Your task to perform on an android device: Open notification settings Image 0: 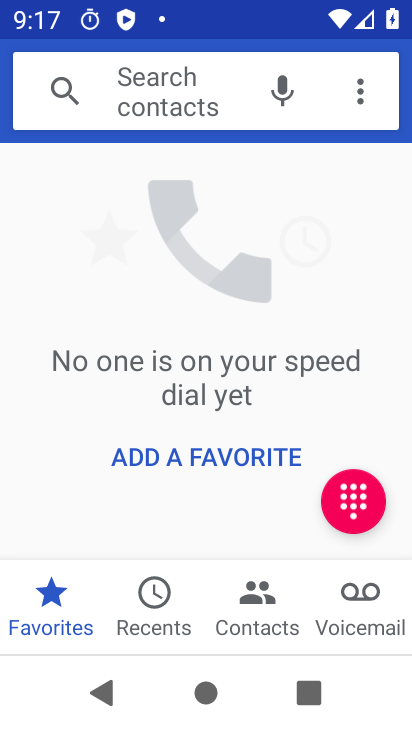
Step 0: press home button
Your task to perform on an android device: Open notification settings Image 1: 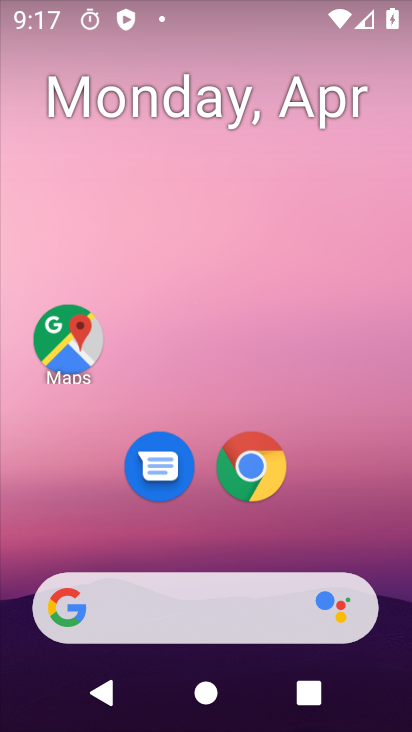
Step 1: drag from (205, 555) to (165, 23)
Your task to perform on an android device: Open notification settings Image 2: 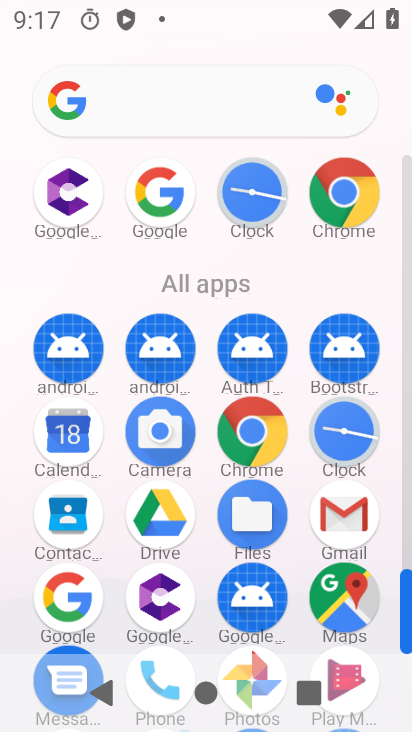
Step 2: drag from (207, 558) to (152, 124)
Your task to perform on an android device: Open notification settings Image 3: 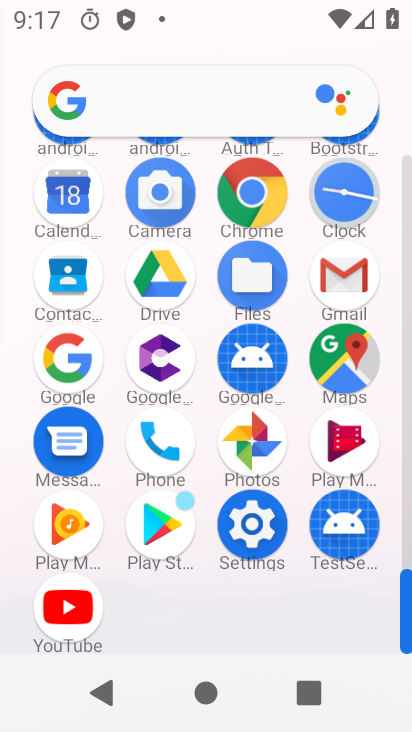
Step 3: click (244, 539)
Your task to perform on an android device: Open notification settings Image 4: 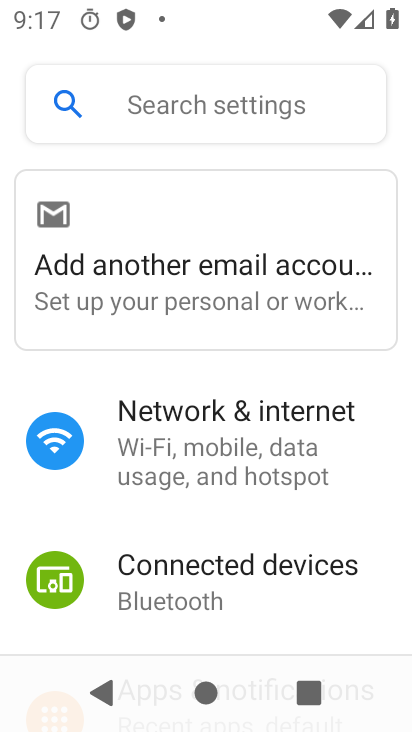
Step 4: drag from (303, 552) to (241, 209)
Your task to perform on an android device: Open notification settings Image 5: 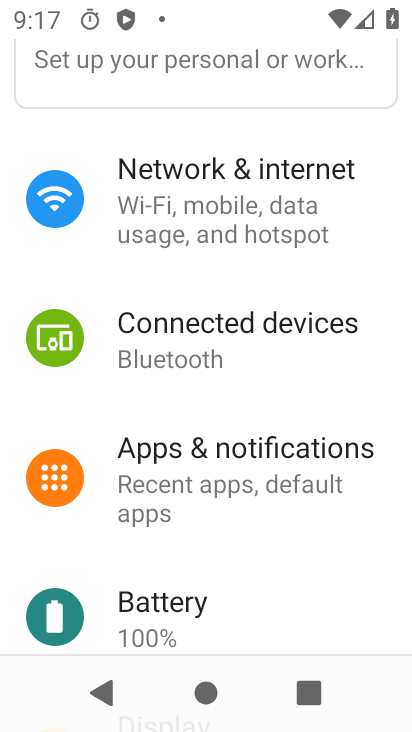
Step 5: click (250, 440)
Your task to perform on an android device: Open notification settings Image 6: 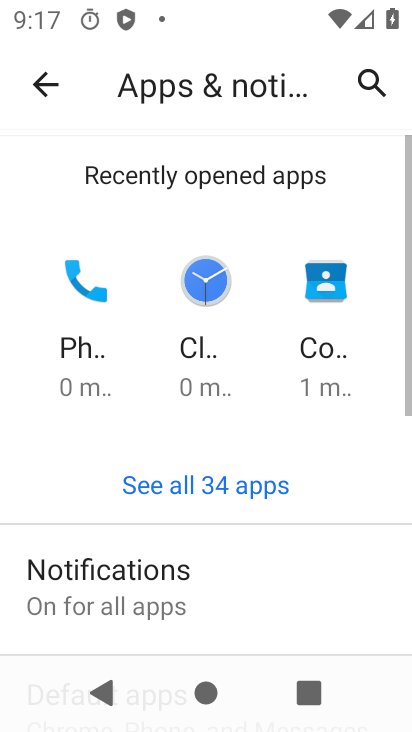
Step 6: click (171, 569)
Your task to perform on an android device: Open notification settings Image 7: 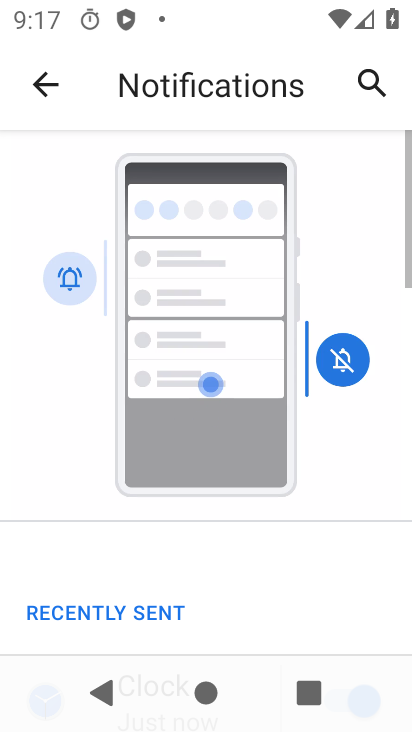
Step 7: task complete